Your task to perform on an android device: What's on my calendar tomorrow? Image 0: 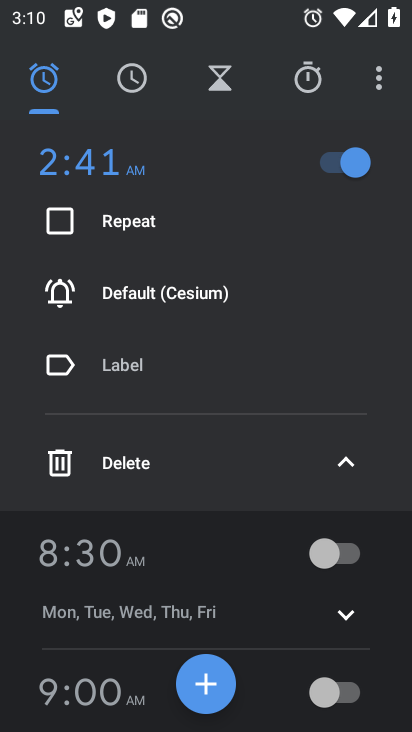
Step 0: press home button
Your task to perform on an android device: What's on my calendar tomorrow? Image 1: 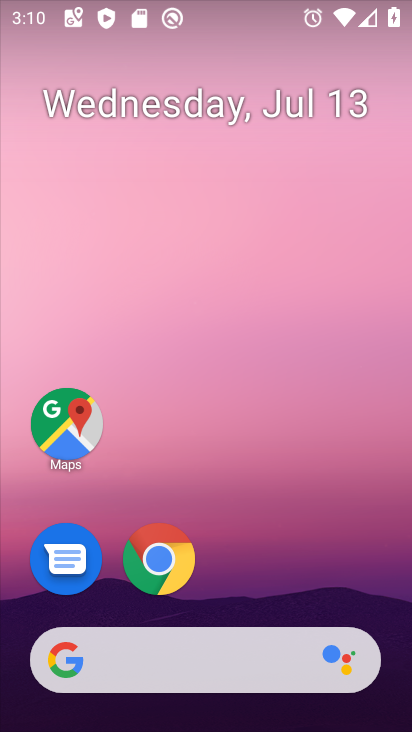
Step 1: drag from (348, 584) to (372, 178)
Your task to perform on an android device: What's on my calendar tomorrow? Image 2: 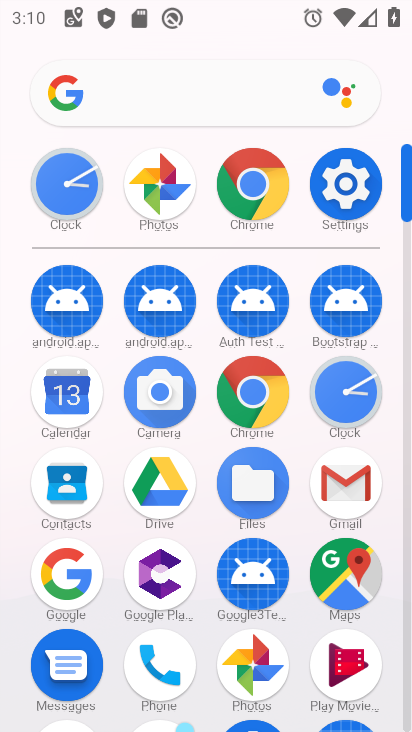
Step 2: click (84, 396)
Your task to perform on an android device: What's on my calendar tomorrow? Image 3: 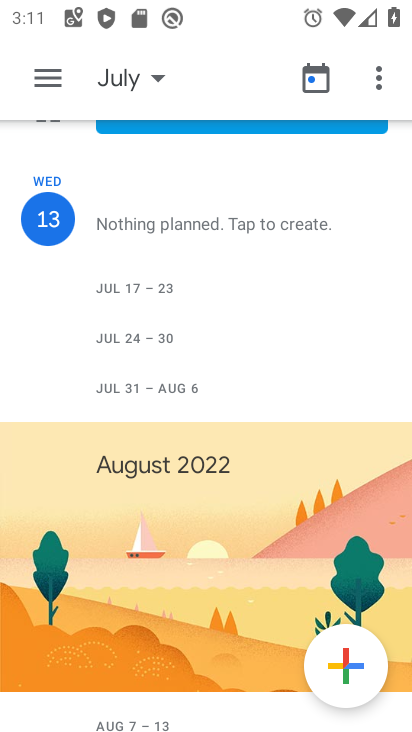
Step 3: click (153, 81)
Your task to perform on an android device: What's on my calendar tomorrow? Image 4: 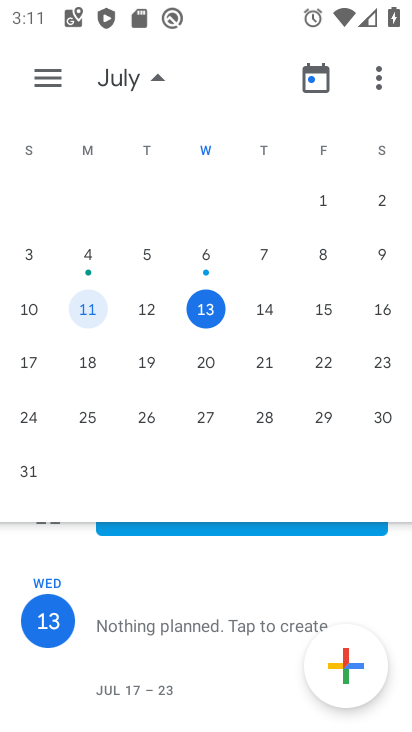
Step 4: click (269, 319)
Your task to perform on an android device: What's on my calendar tomorrow? Image 5: 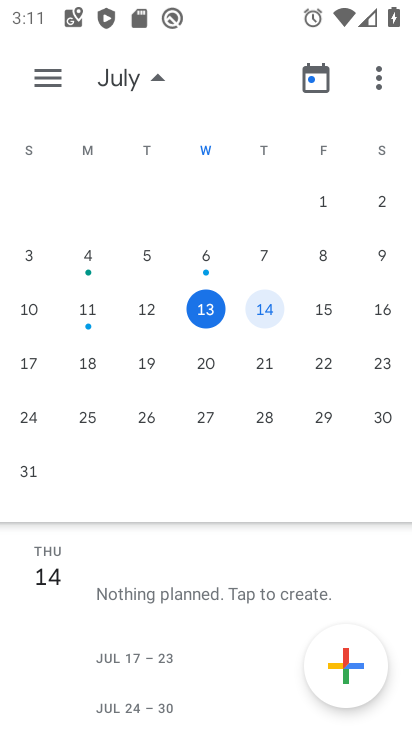
Step 5: task complete